Your task to perform on an android device: Search for Mexican restaurants on Maps Image 0: 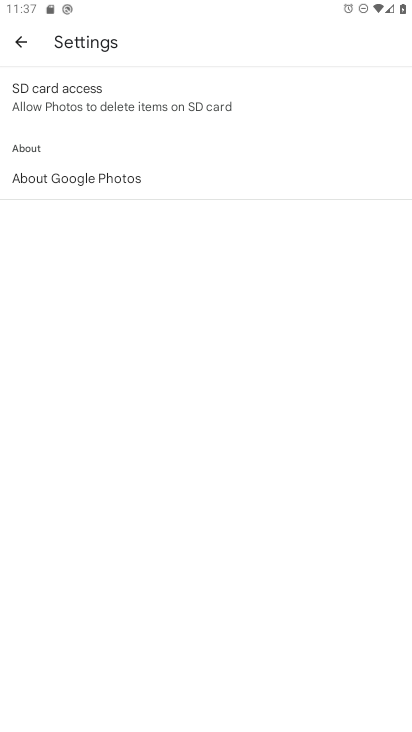
Step 0: press home button
Your task to perform on an android device: Search for Mexican restaurants on Maps Image 1: 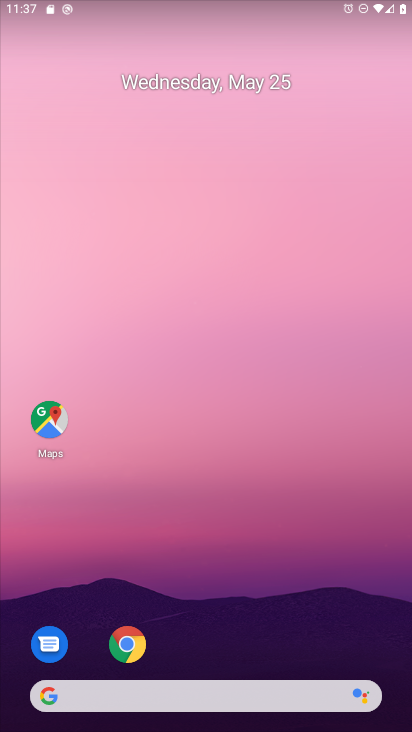
Step 1: drag from (205, 665) to (200, 34)
Your task to perform on an android device: Search for Mexican restaurants on Maps Image 2: 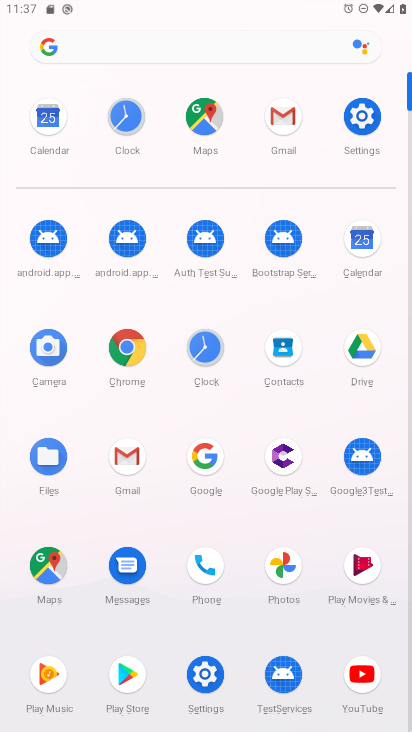
Step 2: click (203, 113)
Your task to perform on an android device: Search for Mexican restaurants on Maps Image 3: 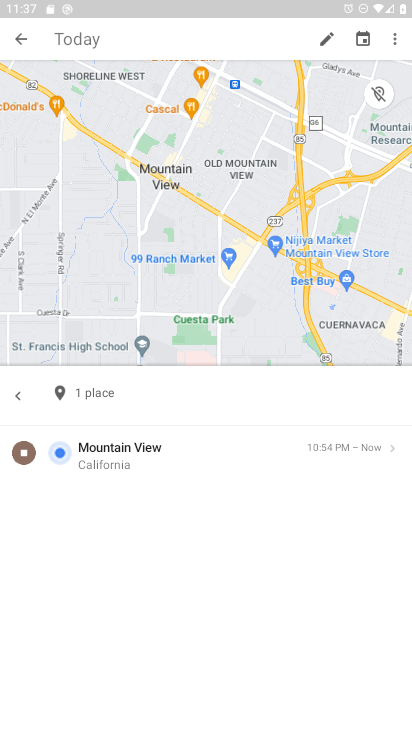
Step 3: click (17, 39)
Your task to perform on an android device: Search for Mexican restaurants on Maps Image 4: 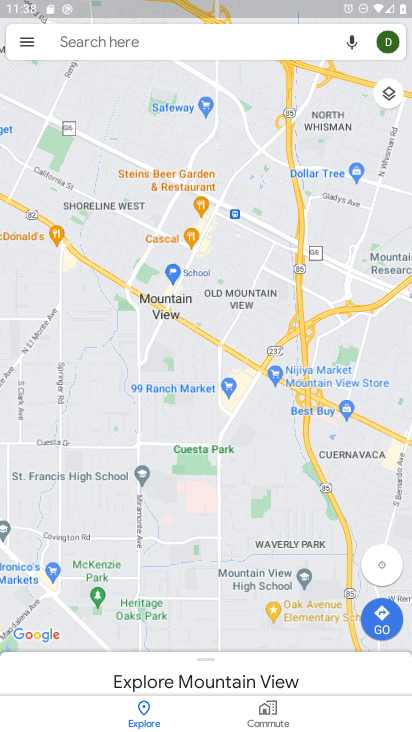
Step 4: click (91, 37)
Your task to perform on an android device: Search for Mexican restaurants on Maps Image 5: 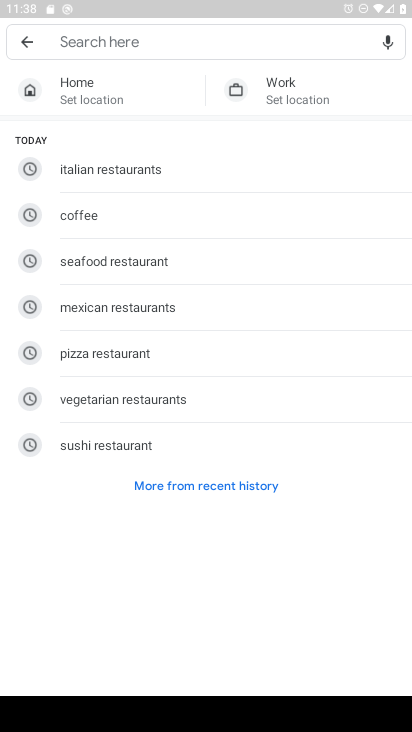
Step 5: click (131, 306)
Your task to perform on an android device: Search for Mexican restaurants on Maps Image 6: 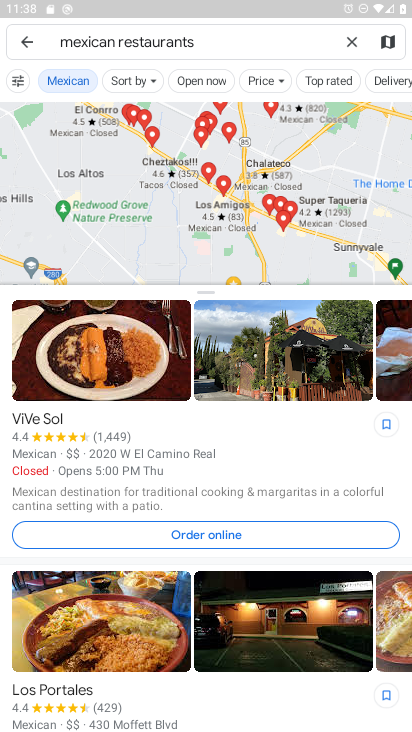
Step 6: task complete